Your task to perform on an android device: Open maps Image 0: 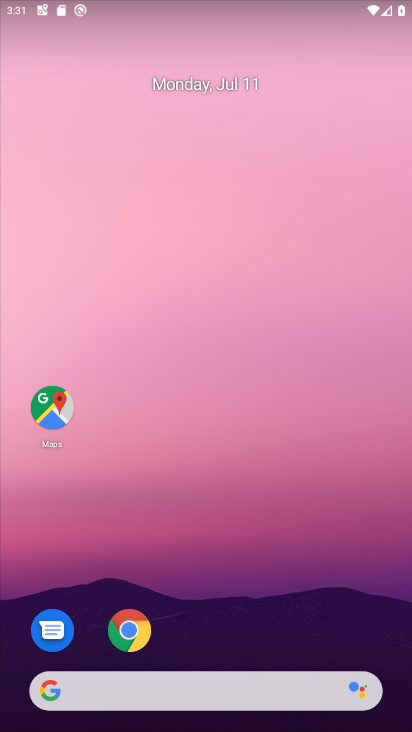
Step 0: click (47, 405)
Your task to perform on an android device: Open maps Image 1: 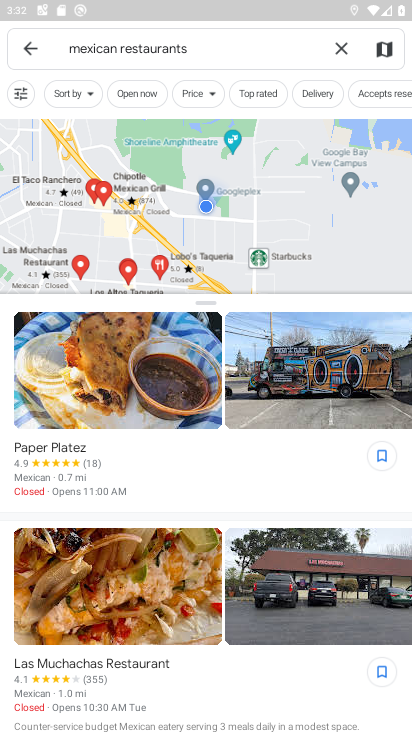
Step 1: task complete